Your task to perform on an android device: Go to network settings Image 0: 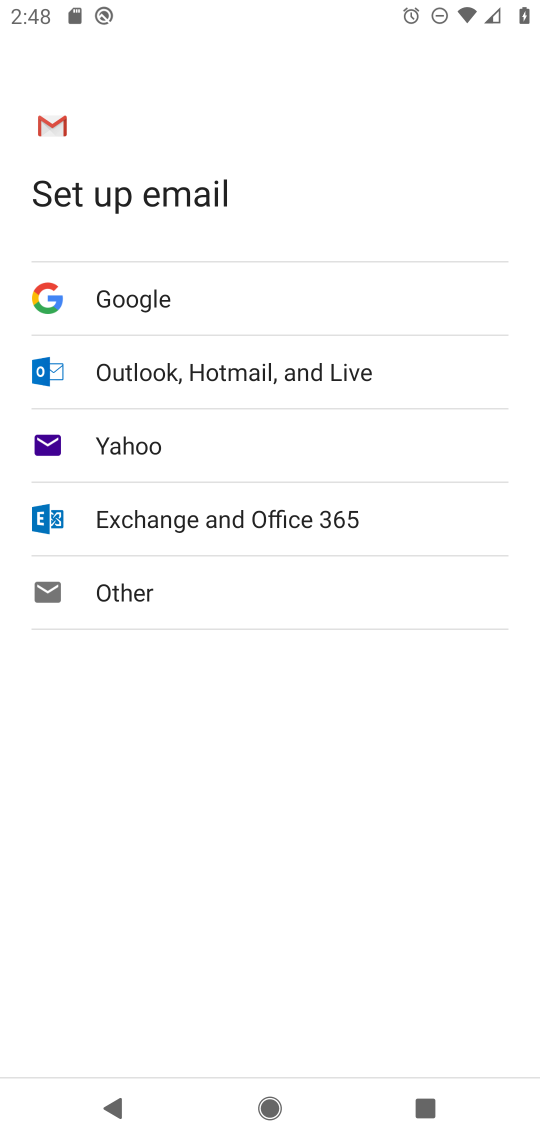
Step 0: press home button
Your task to perform on an android device: Go to network settings Image 1: 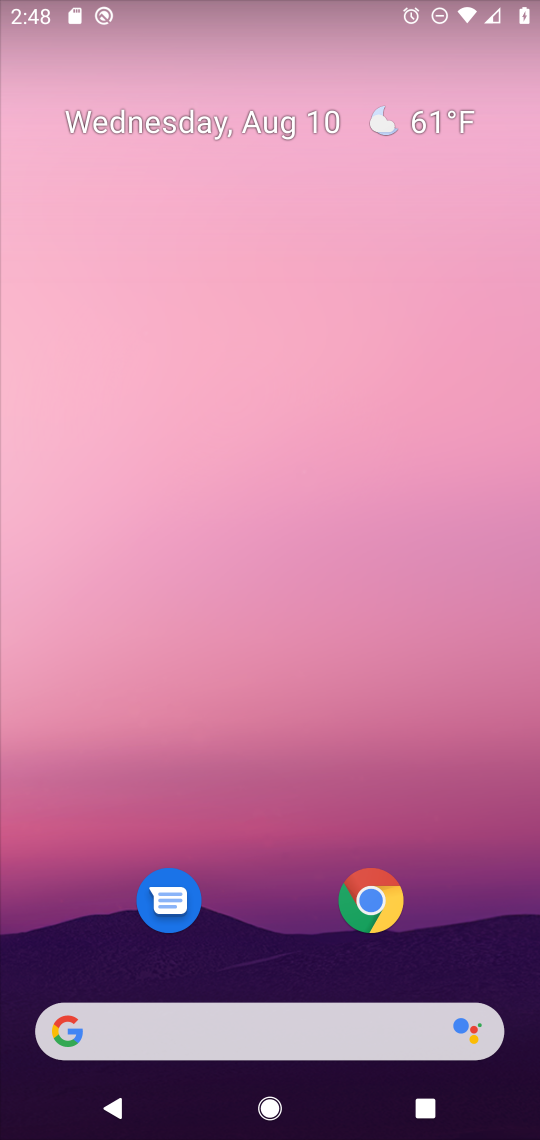
Step 1: drag from (287, 881) to (375, 21)
Your task to perform on an android device: Go to network settings Image 2: 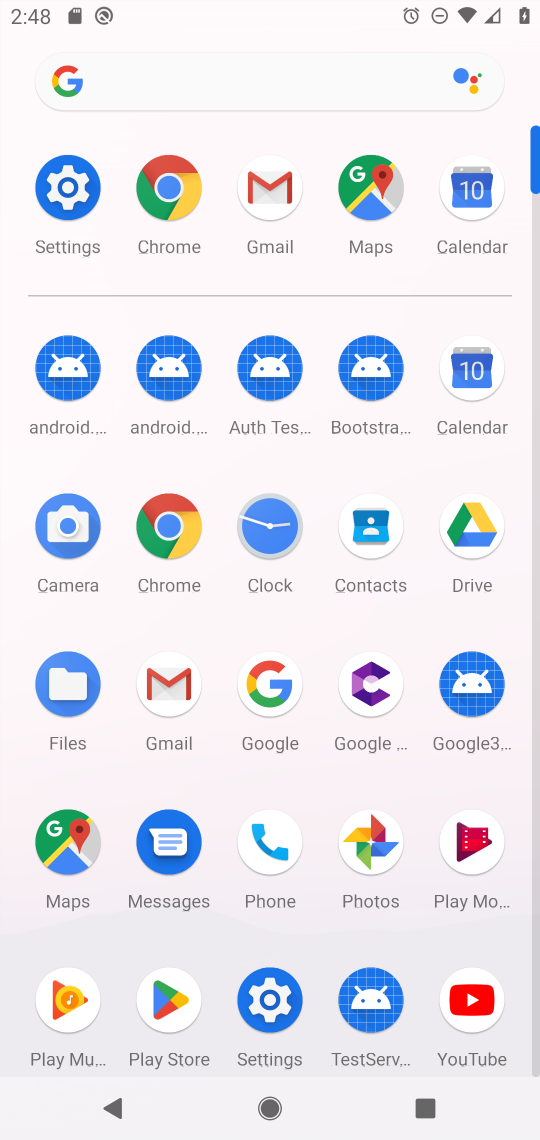
Step 2: click (69, 189)
Your task to perform on an android device: Go to network settings Image 3: 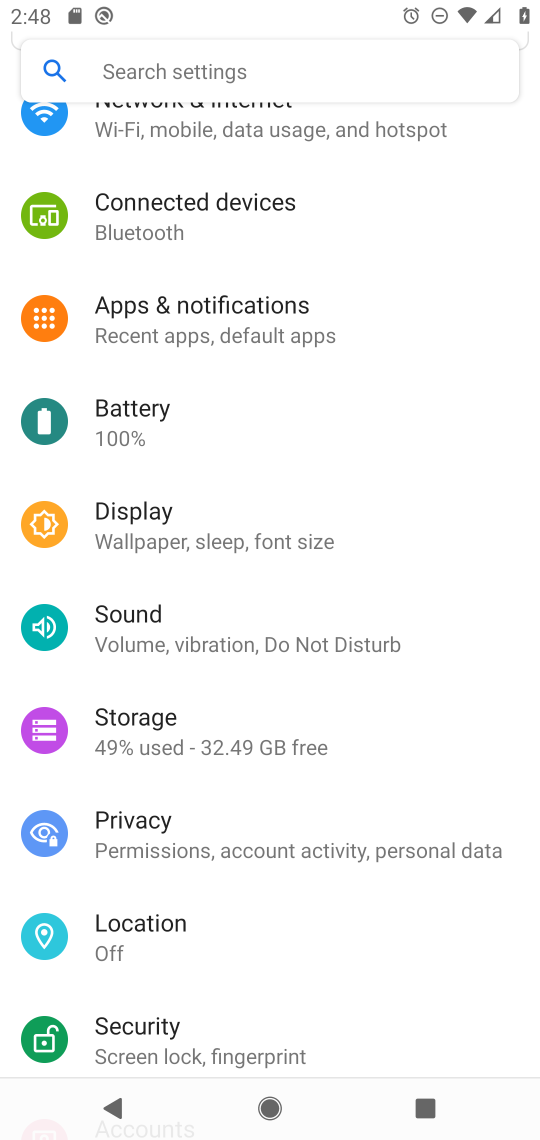
Step 3: drag from (280, 250) to (348, 680)
Your task to perform on an android device: Go to network settings Image 4: 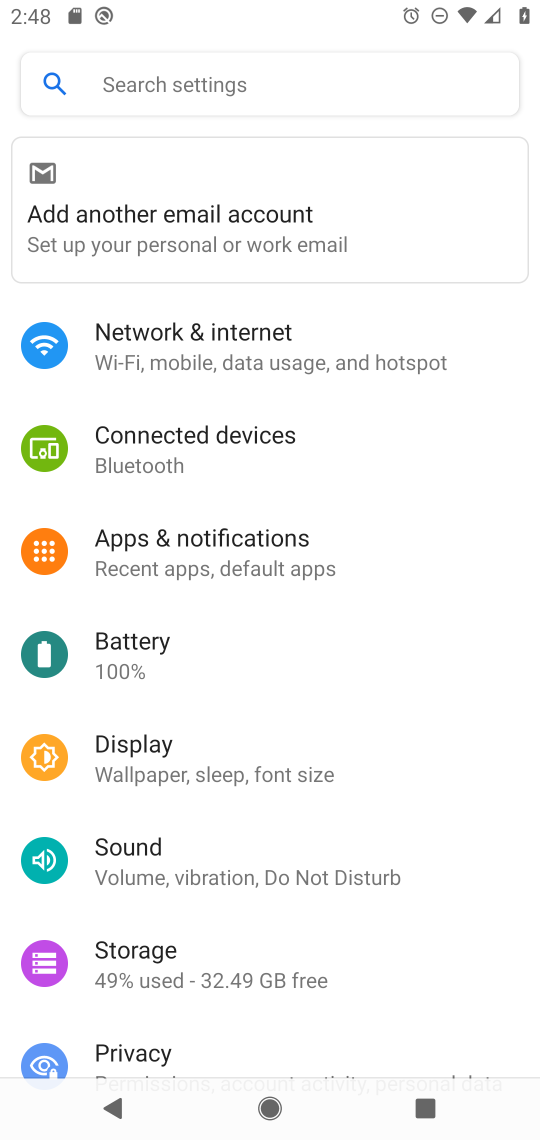
Step 4: click (247, 342)
Your task to perform on an android device: Go to network settings Image 5: 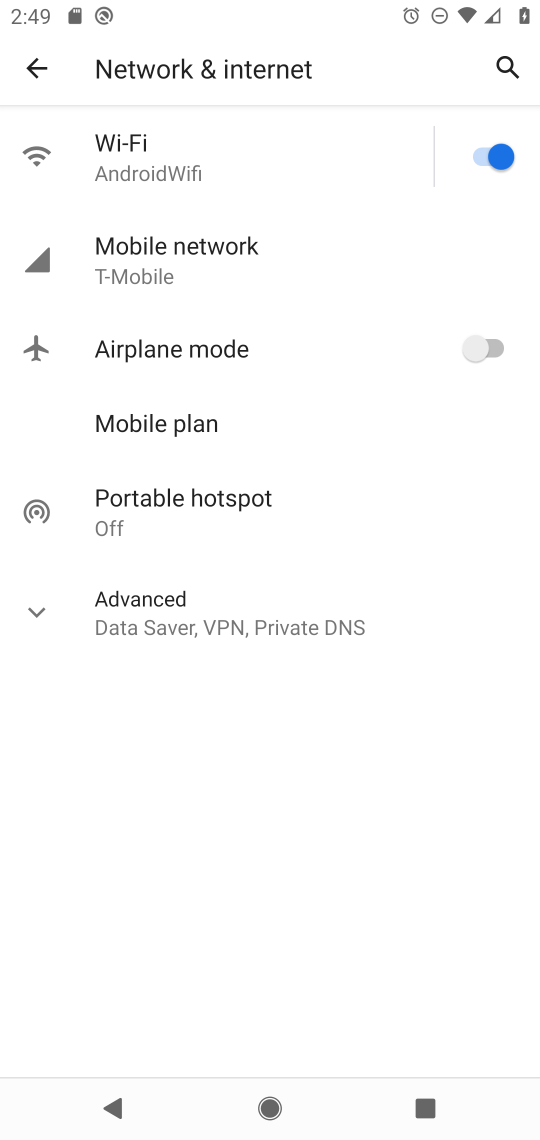
Step 5: task complete